Your task to perform on an android device: turn vacation reply on in the gmail app Image 0: 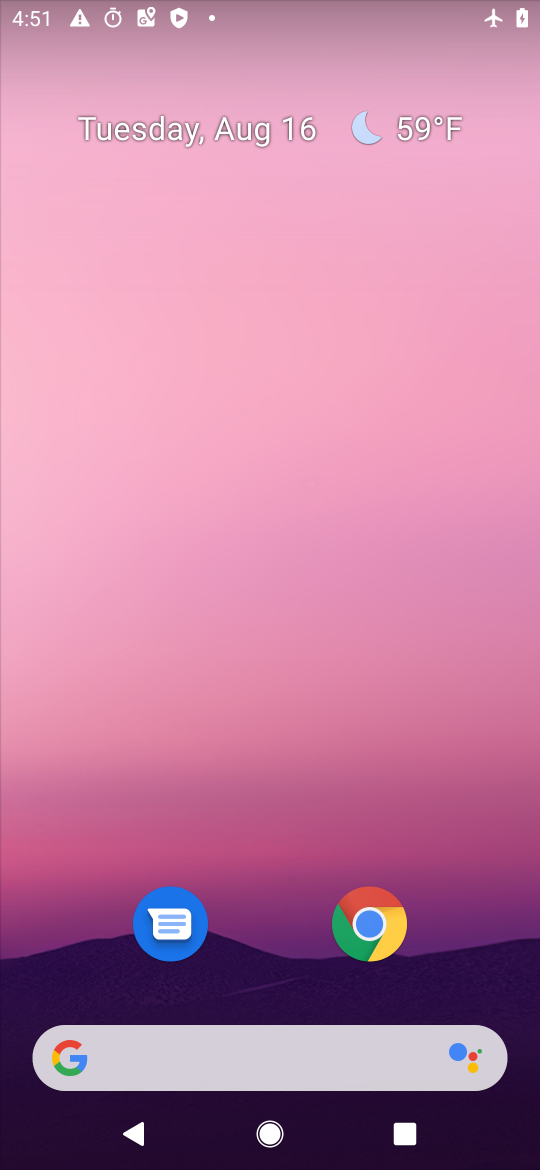
Step 0: drag from (239, 987) to (234, 452)
Your task to perform on an android device: turn vacation reply on in the gmail app Image 1: 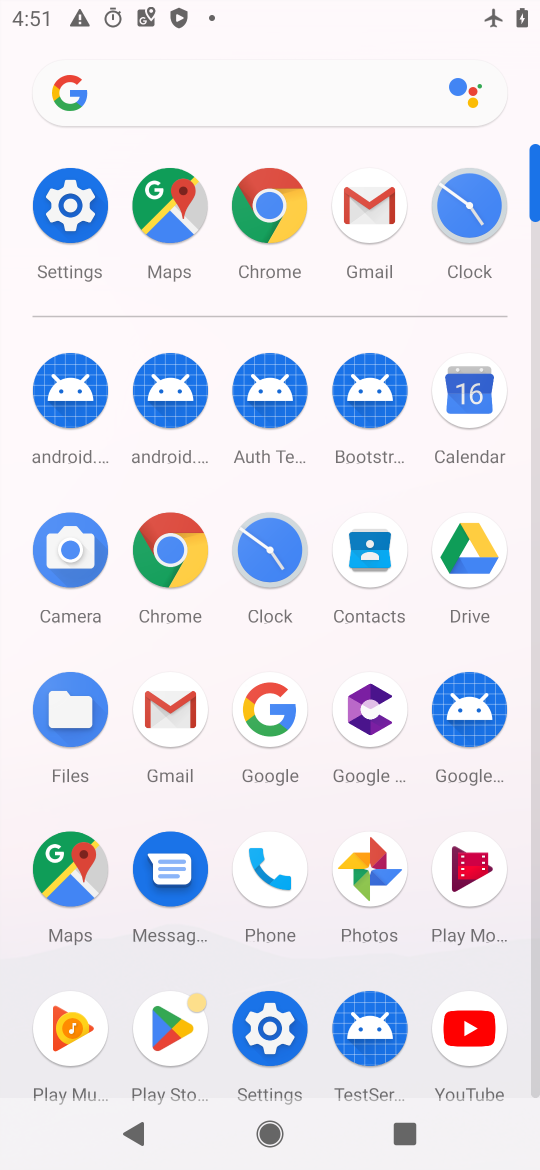
Step 1: click (358, 217)
Your task to perform on an android device: turn vacation reply on in the gmail app Image 2: 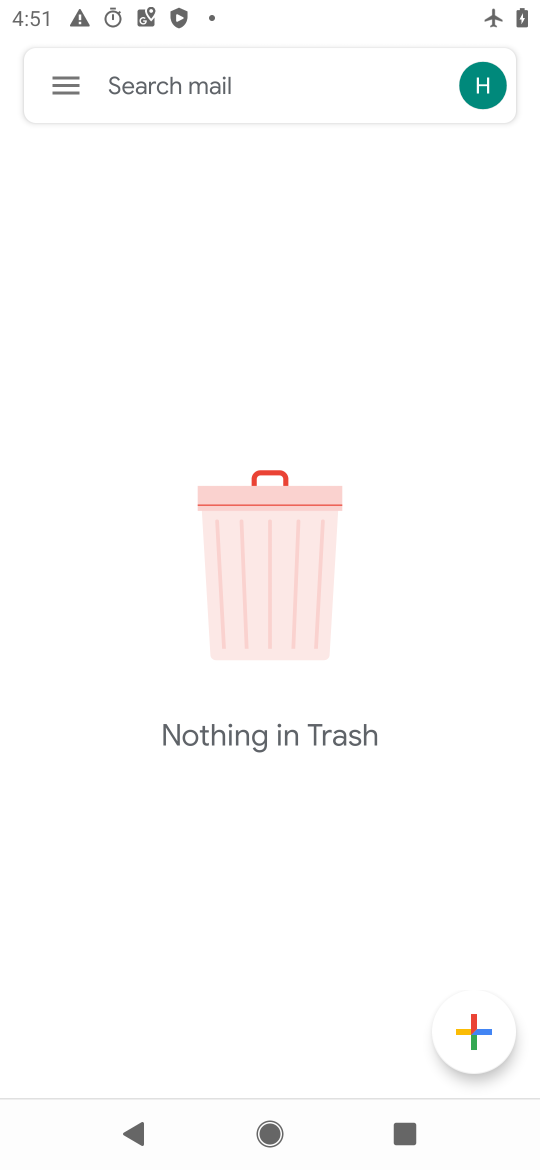
Step 2: click (71, 82)
Your task to perform on an android device: turn vacation reply on in the gmail app Image 3: 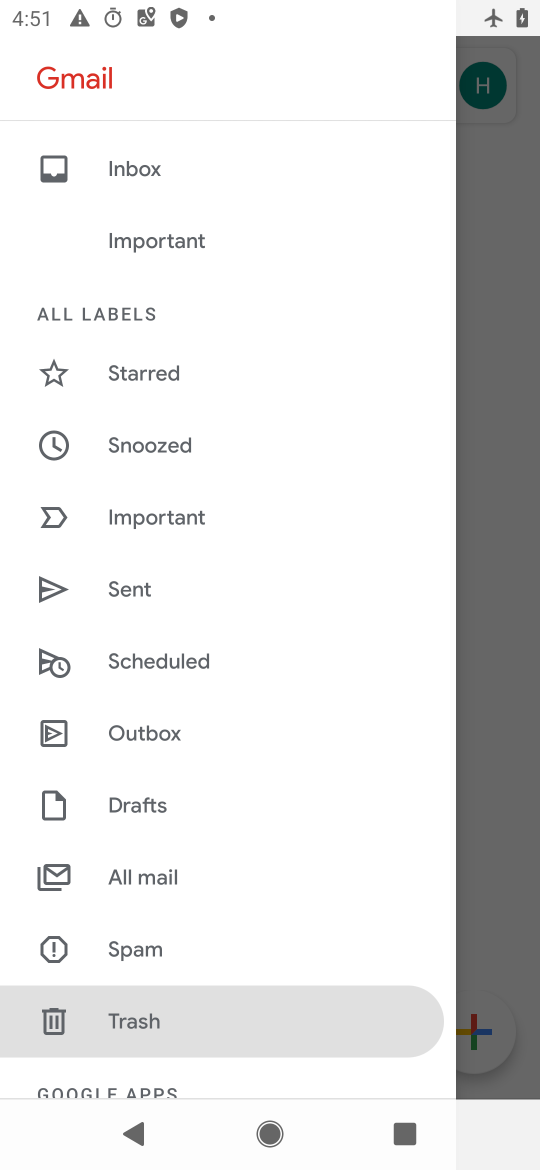
Step 3: drag from (173, 1022) to (144, 133)
Your task to perform on an android device: turn vacation reply on in the gmail app Image 4: 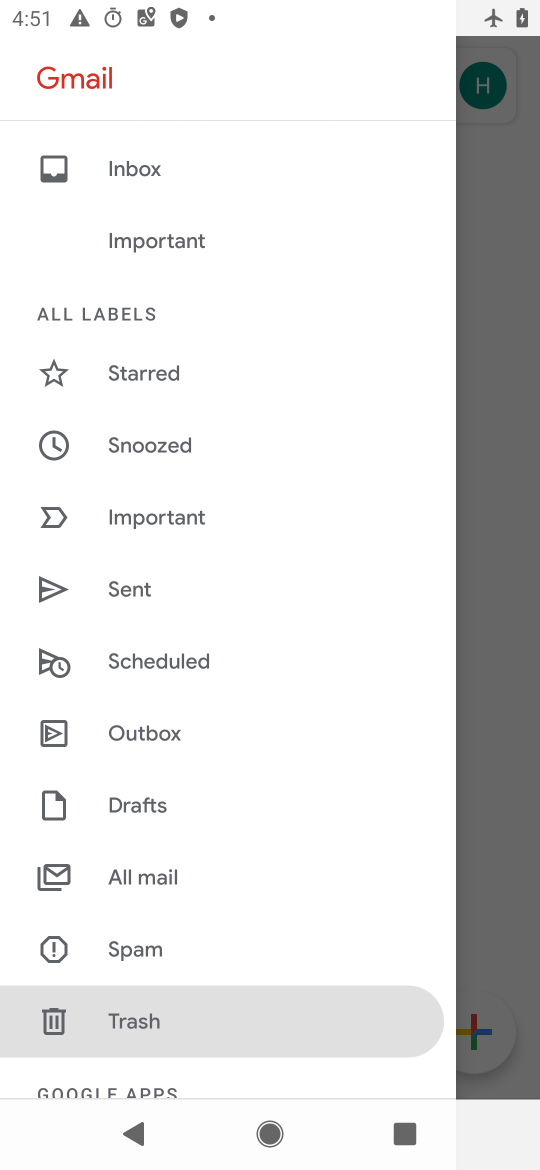
Step 4: drag from (270, 1093) to (283, 268)
Your task to perform on an android device: turn vacation reply on in the gmail app Image 5: 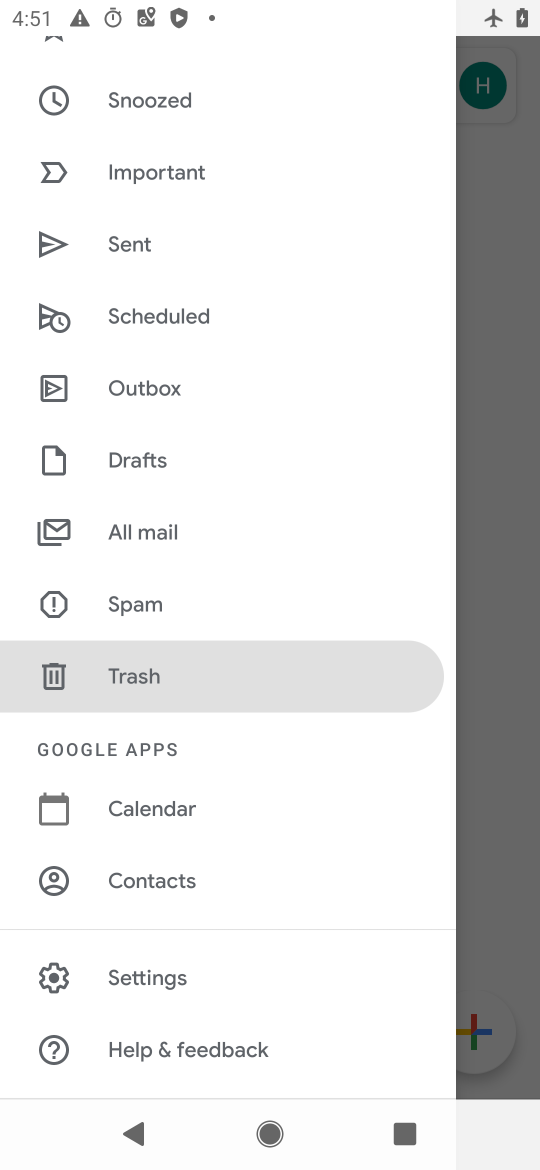
Step 5: click (147, 995)
Your task to perform on an android device: turn vacation reply on in the gmail app Image 6: 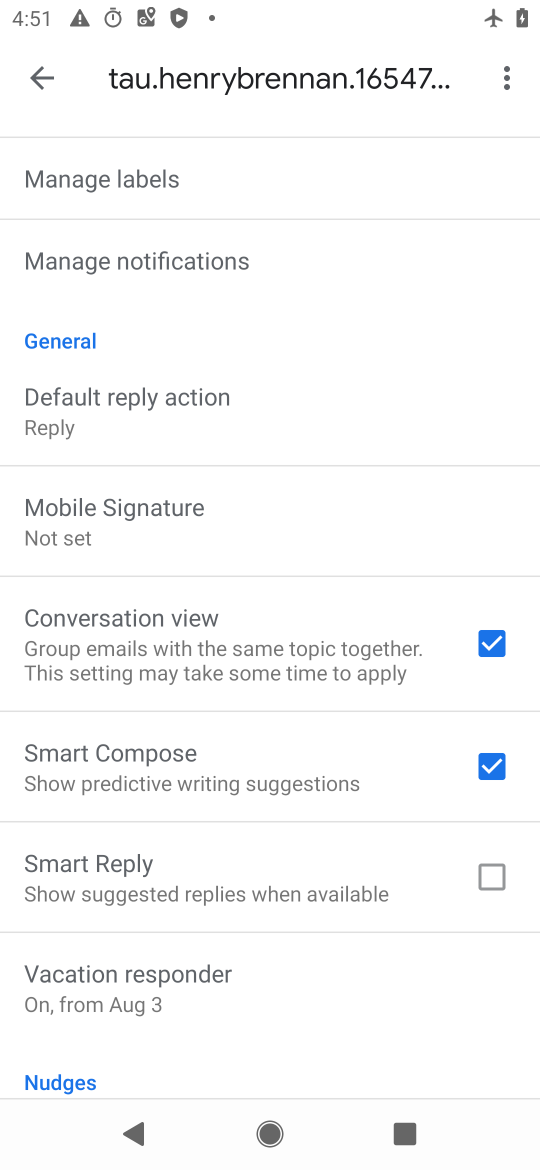
Step 6: click (212, 988)
Your task to perform on an android device: turn vacation reply on in the gmail app Image 7: 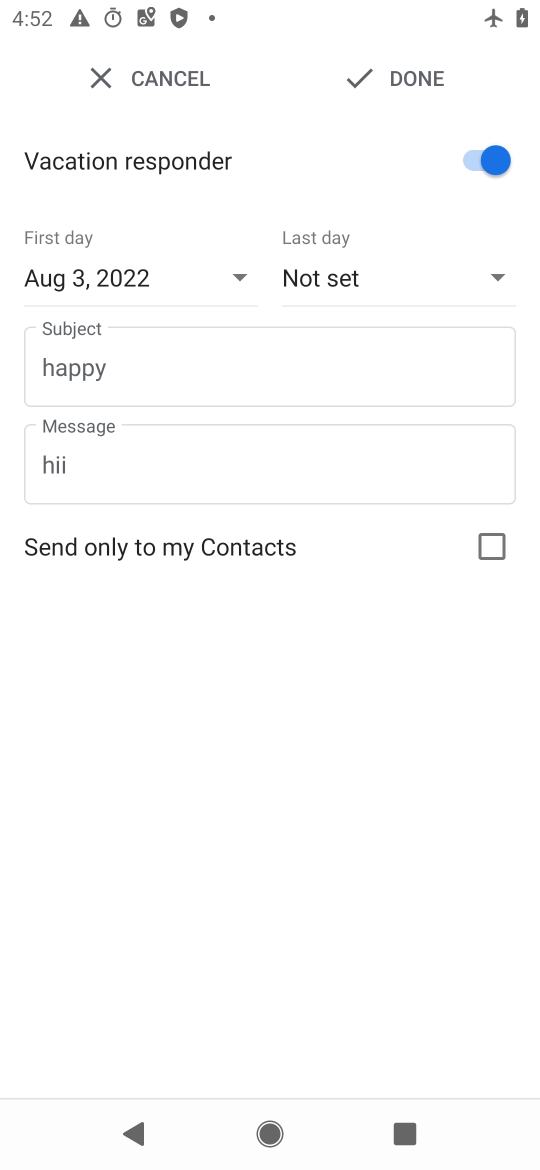
Step 7: click (393, 78)
Your task to perform on an android device: turn vacation reply on in the gmail app Image 8: 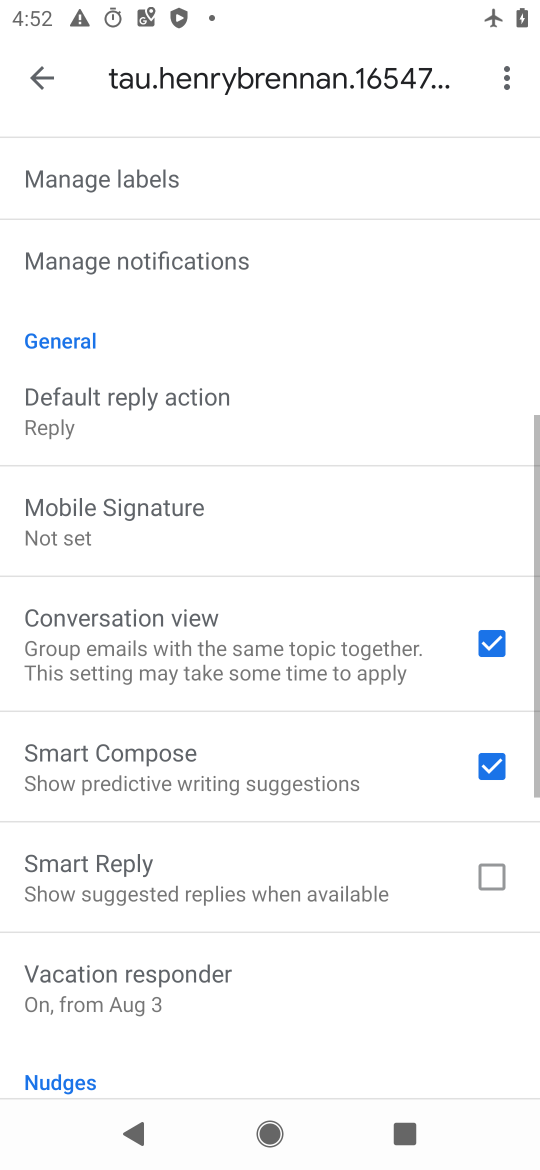
Step 8: task complete